Your task to perform on an android device: Clear the shopping cart on amazon. Search for "rayovac triple a" on amazon, select the first entry, add it to the cart, then select checkout. Image 0: 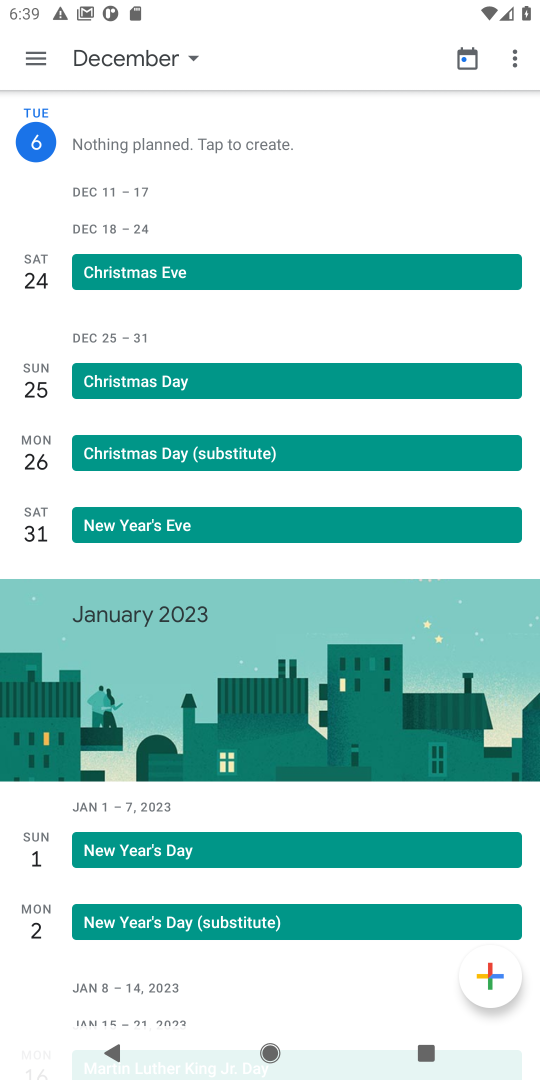
Step 0: press home button
Your task to perform on an android device: Clear the shopping cart on amazon. Search for "rayovac triple a" on amazon, select the first entry, add it to the cart, then select checkout. Image 1: 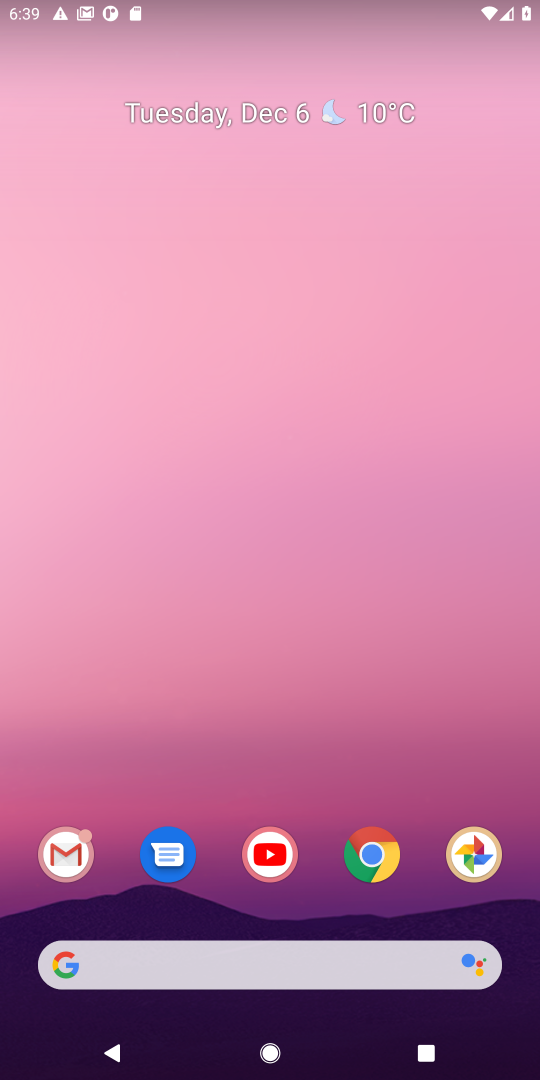
Step 1: click (374, 849)
Your task to perform on an android device: Clear the shopping cart on amazon. Search for "rayovac triple a" on amazon, select the first entry, add it to the cart, then select checkout. Image 2: 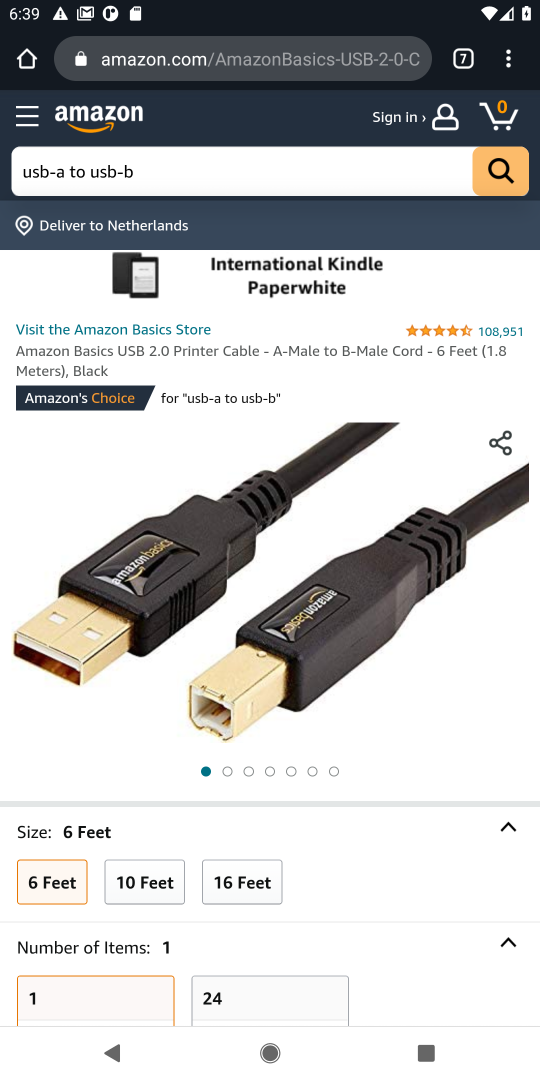
Step 2: click (147, 163)
Your task to perform on an android device: Clear the shopping cart on amazon. Search for "rayovac triple a" on amazon, select the first entry, add it to the cart, then select checkout. Image 3: 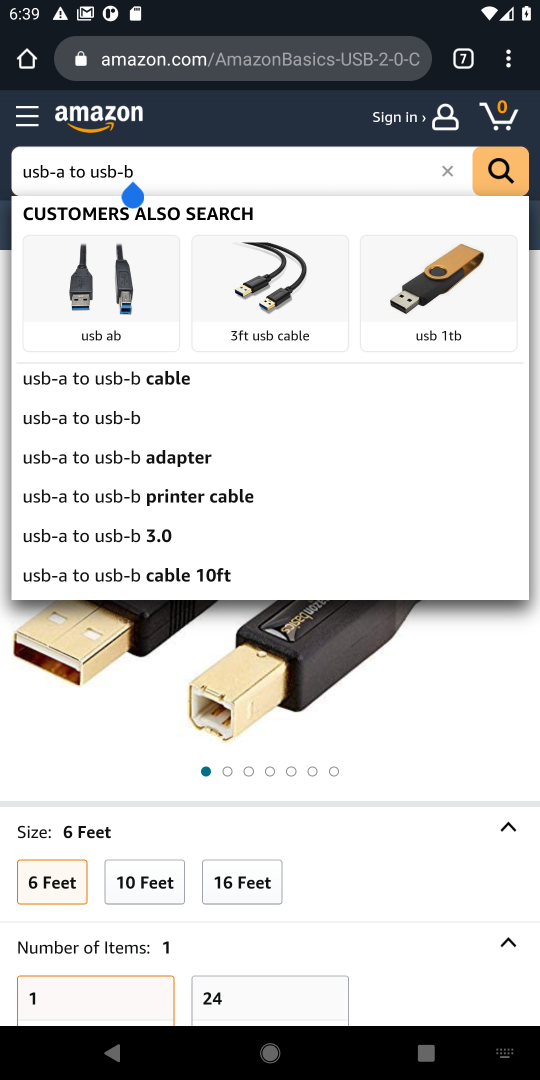
Step 3: click (445, 174)
Your task to perform on an android device: Clear the shopping cart on amazon. Search for "rayovac triple a" on amazon, select the first entry, add it to the cart, then select checkout. Image 4: 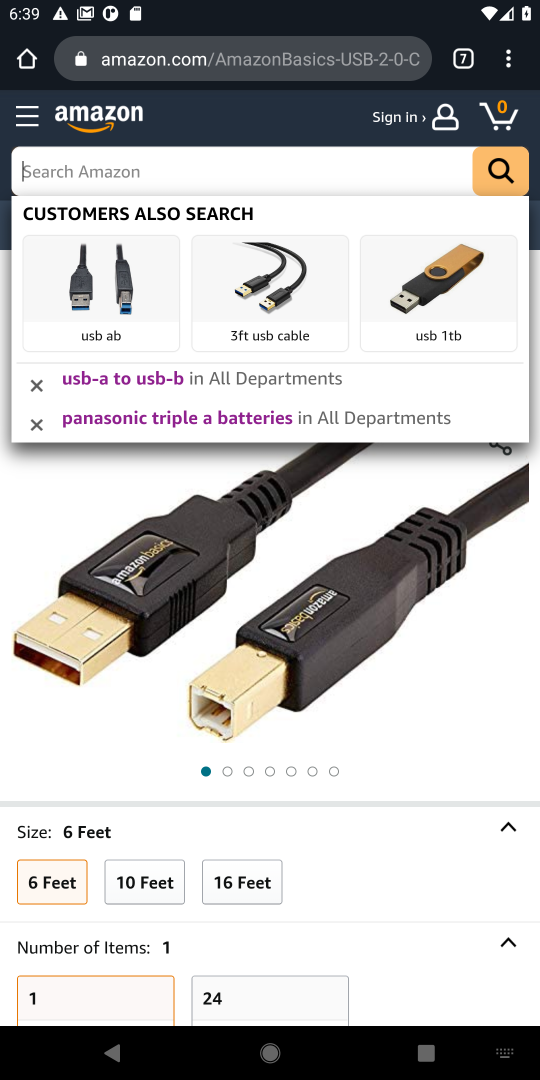
Step 4: type "rayovac triple a"
Your task to perform on an android device: Clear the shopping cart on amazon. Search for "rayovac triple a" on amazon, select the first entry, add it to the cart, then select checkout. Image 5: 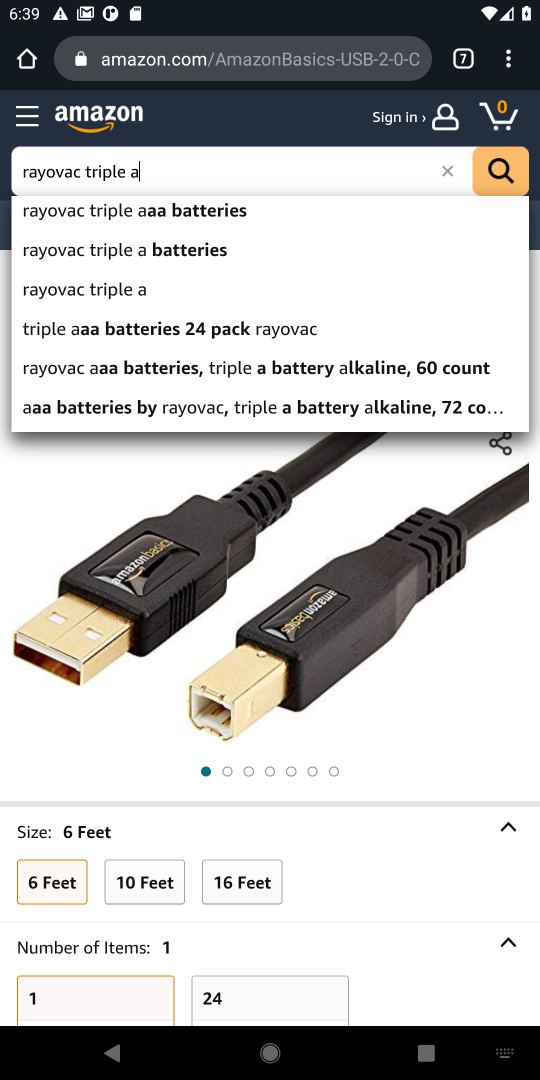
Step 5: click (513, 159)
Your task to perform on an android device: Clear the shopping cart on amazon. Search for "rayovac triple a" on amazon, select the first entry, add it to the cart, then select checkout. Image 6: 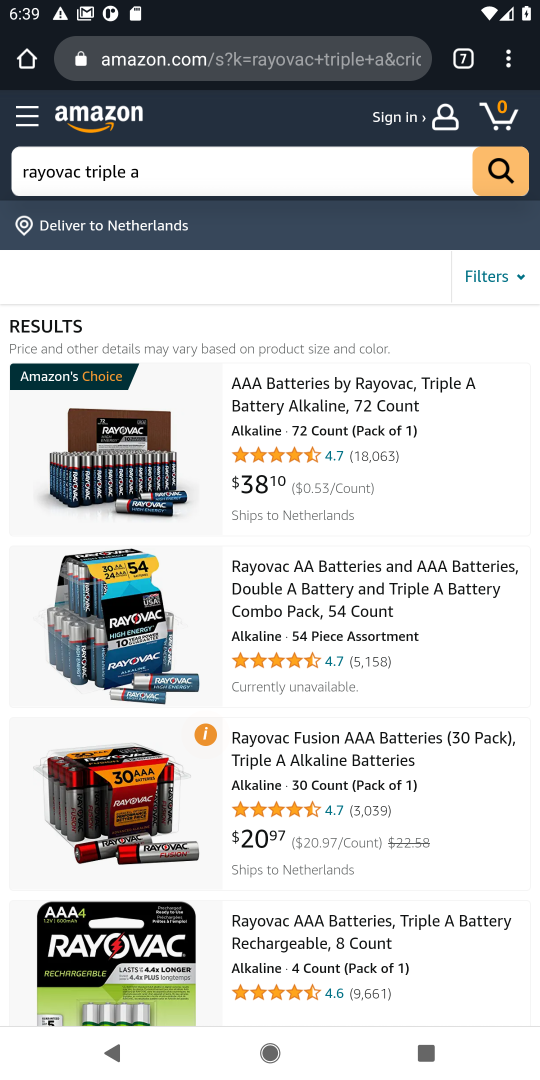
Step 6: click (307, 591)
Your task to perform on an android device: Clear the shopping cart on amazon. Search for "rayovac triple a" on amazon, select the first entry, add it to the cart, then select checkout. Image 7: 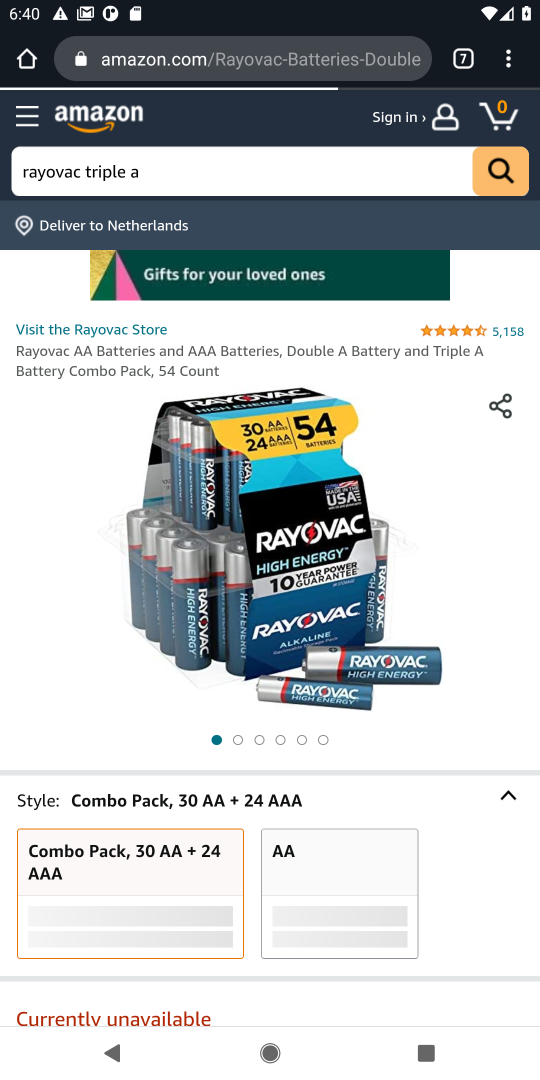
Step 7: task complete